Your task to perform on an android device: Do I have any events today? Image 0: 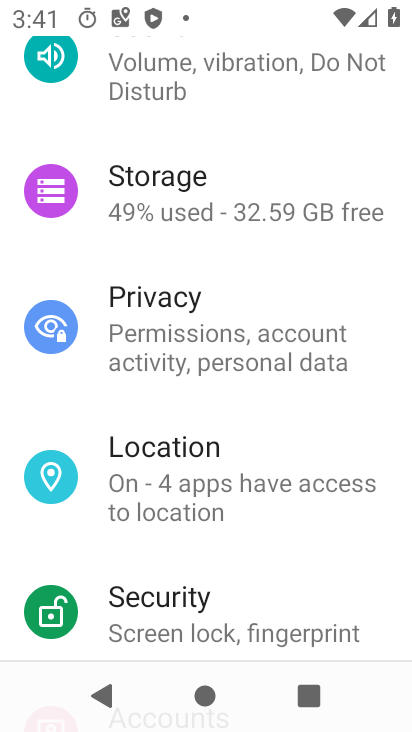
Step 0: press home button
Your task to perform on an android device: Do I have any events today? Image 1: 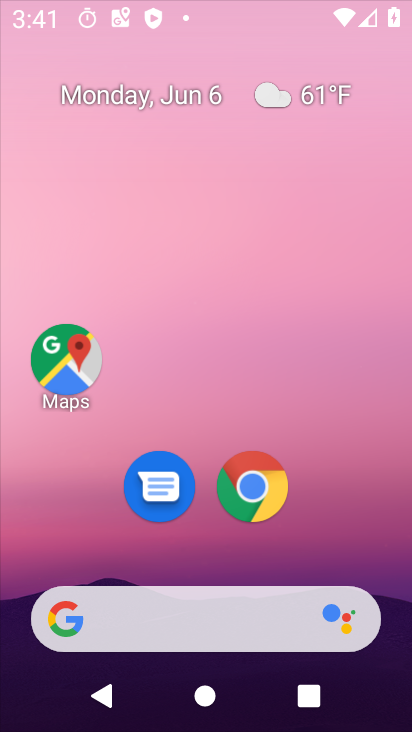
Step 1: drag from (195, 476) to (183, 122)
Your task to perform on an android device: Do I have any events today? Image 2: 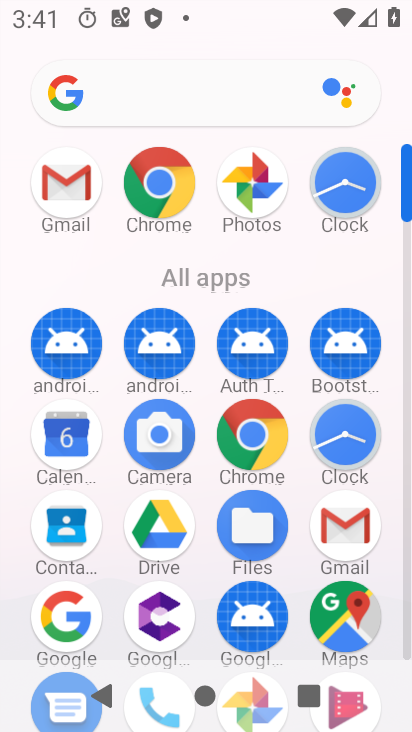
Step 2: click (73, 451)
Your task to perform on an android device: Do I have any events today? Image 3: 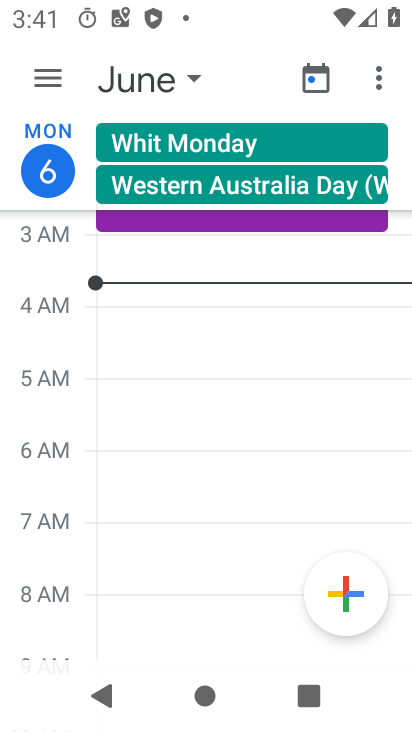
Step 3: task complete